Your task to perform on an android device: Open the calendar app, open the side menu, and click the "Day" option Image 0: 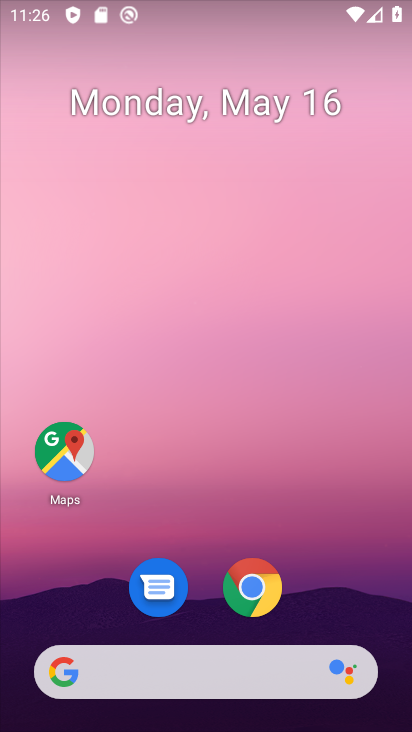
Step 0: drag from (337, 603) to (238, 39)
Your task to perform on an android device: Open the calendar app, open the side menu, and click the "Day" option Image 1: 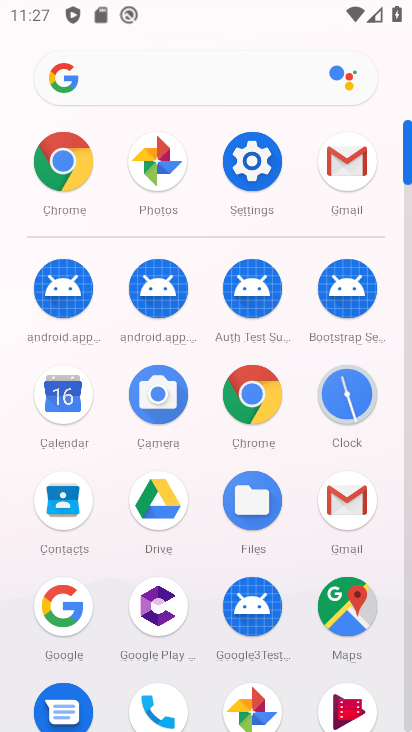
Step 1: click (66, 405)
Your task to perform on an android device: Open the calendar app, open the side menu, and click the "Day" option Image 2: 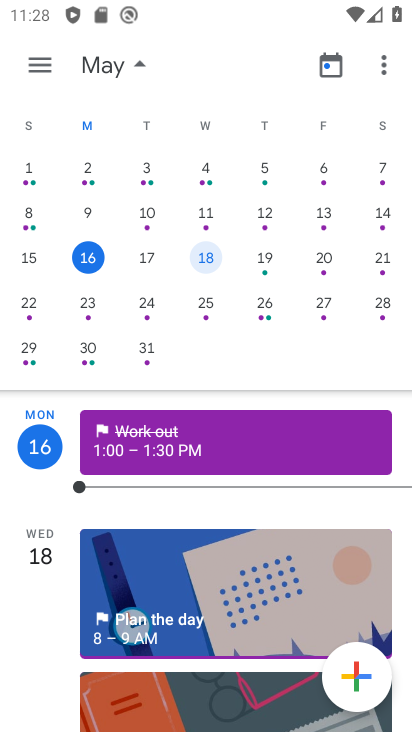
Step 2: click (36, 54)
Your task to perform on an android device: Open the calendar app, open the side menu, and click the "Day" option Image 3: 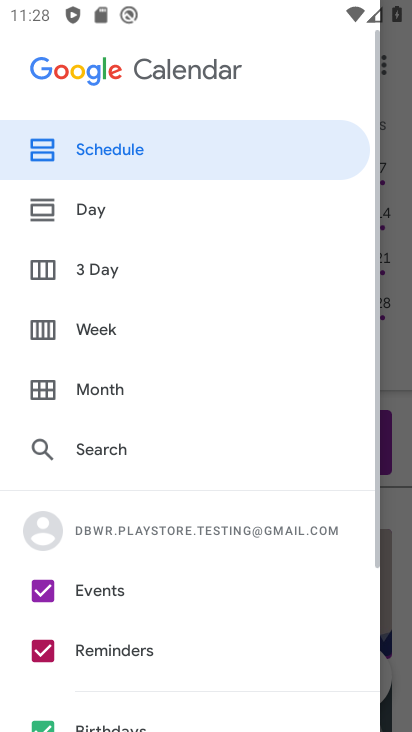
Step 3: click (83, 205)
Your task to perform on an android device: Open the calendar app, open the side menu, and click the "Day" option Image 4: 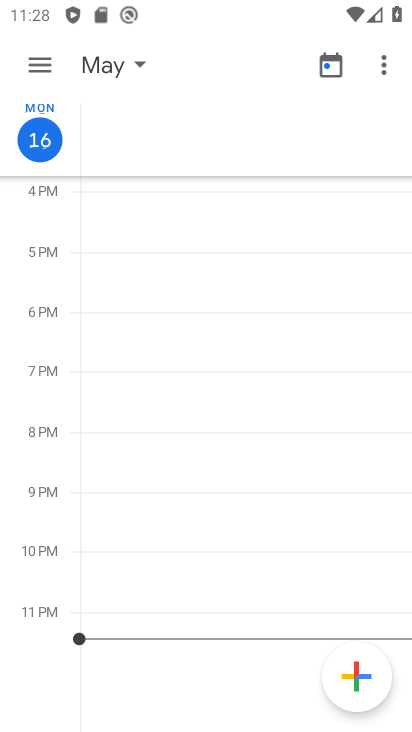
Step 4: task complete